Your task to perform on an android device: Open Google Chrome and click the shortcut for Amazon.com Image 0: 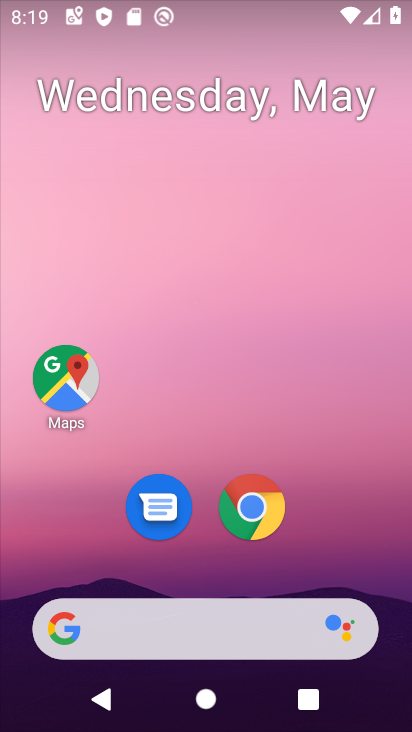
Step 0: click (263, 506)
Your task to perform on an android device: Open Google Chrome and click the shortcut for Amazon.com Image 1: 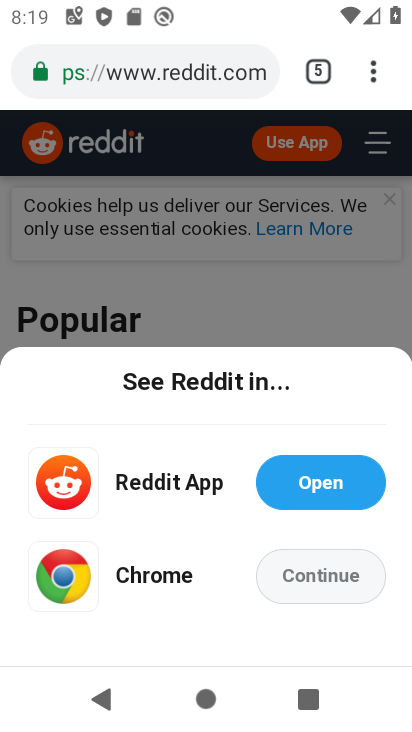
Step 1: click (377, 72)
Your task to perform on an android device: Open Google Chrome and click the shortcut for Amazon.com Image 2: 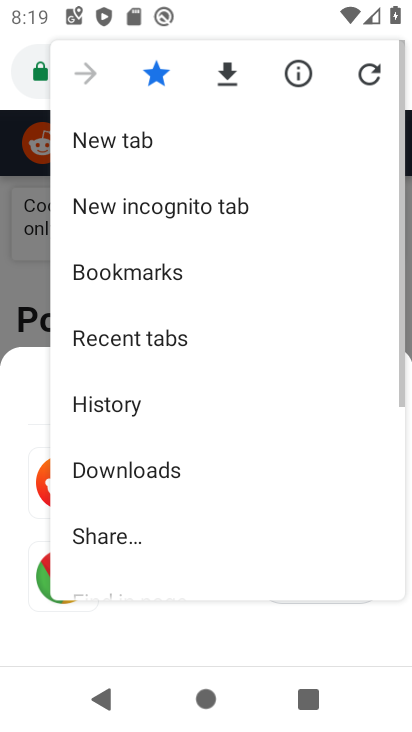
Step 2: click (201, 141)
Your task to perform on an android device: Open Google Chrome and click the shortcut for Amazon.com Image 3: 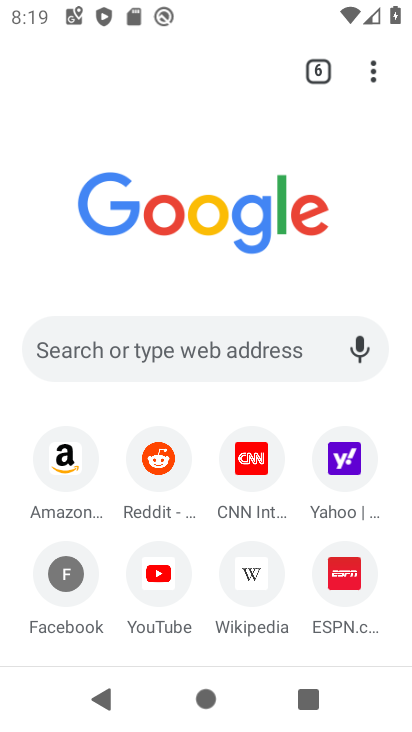
Step 3: click (78, 462)
Your task to perform on an android device: Open Google Chrome and click the shortcut for Amazon.com Image 4: 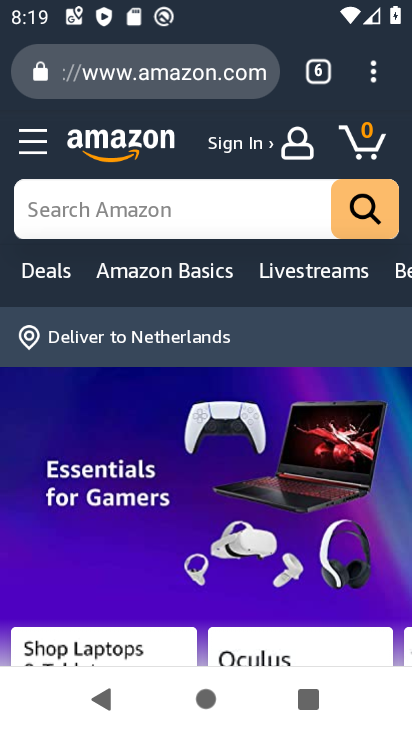
Step 4: task complete